Your task to perform on an android device: Go to wifi settings Image 0: 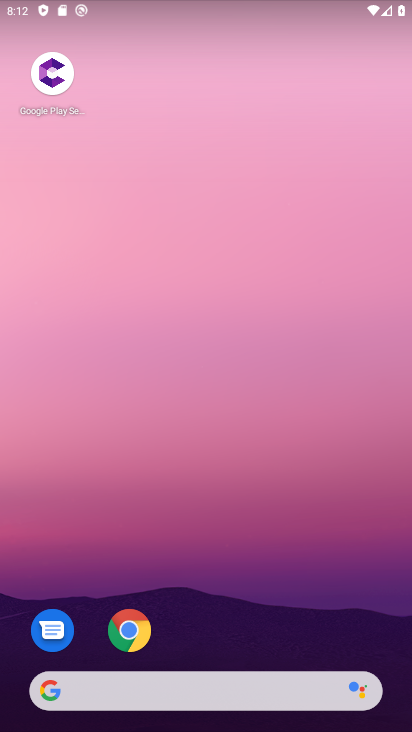
Step 0: drag from (215, 698) to (383, 268)
Your task to perform on an android device: Go to wifi settings Image 1: 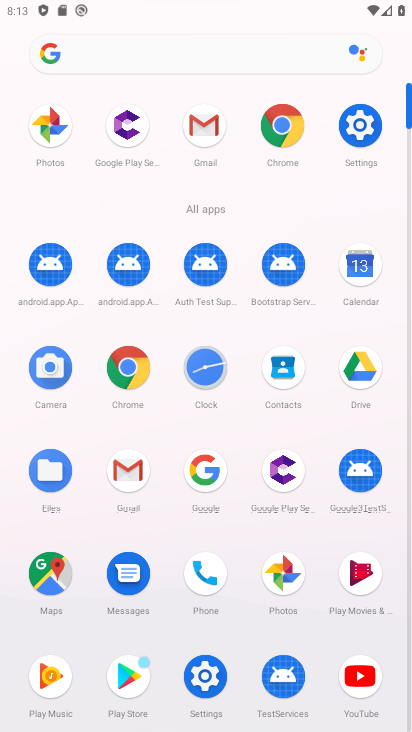
Step 1: click (360, 126)
Your task to perform on an android device: Go to wifi settings Image 2: 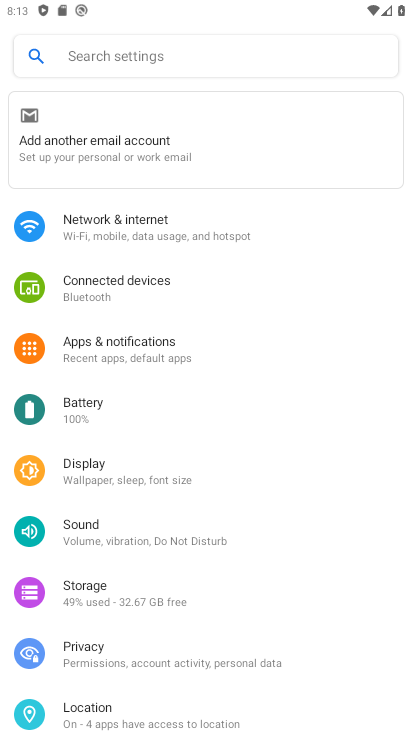
Step 2: click (162, 232)
Your task to perform on an android device: Go to wifi settings Image 3: 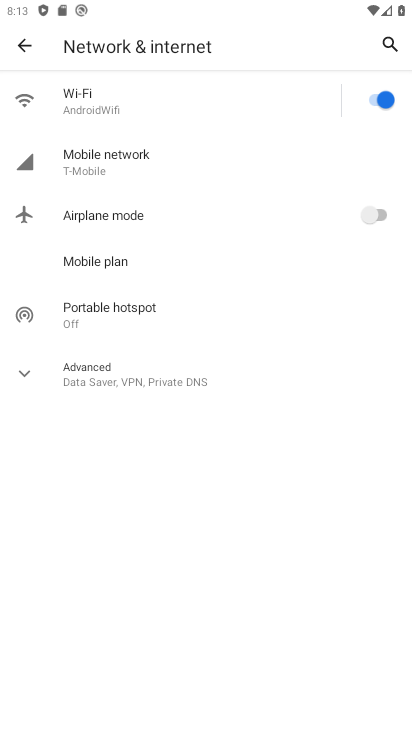
Step 3: click (95, 102)
Your task to perform on an android device: Go to wifi settings Image 4: 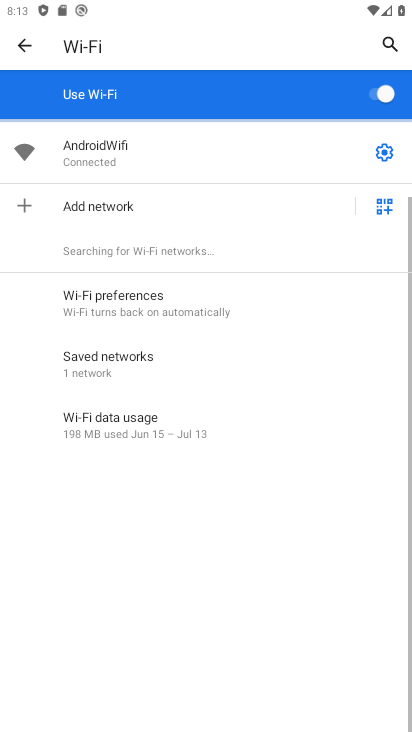
Step 4: click (385, 154)
Your task to perform on an android device: Go to wifi settings Image 5: 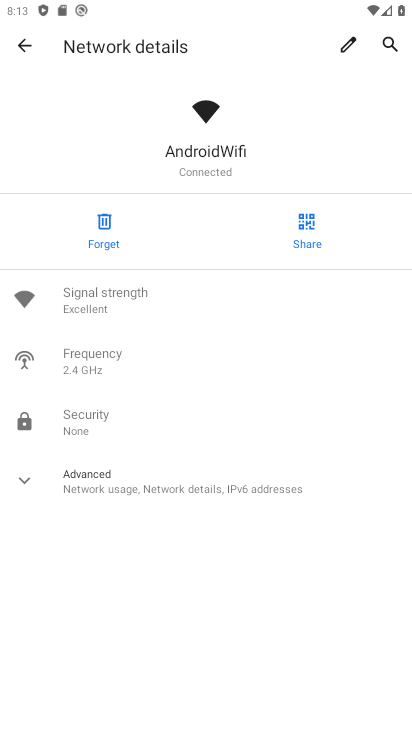
Step 5: task complete